Your task to perform on an android device: Search for vegetarian restaurants on Maps Image 0: 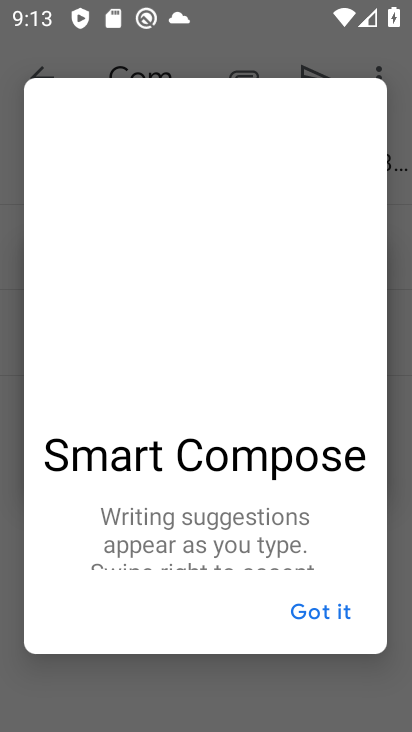
Step 0: click (312, 609)
Your task to perform on an android device: Search for vegetarian restaurants on Maps Image 1: 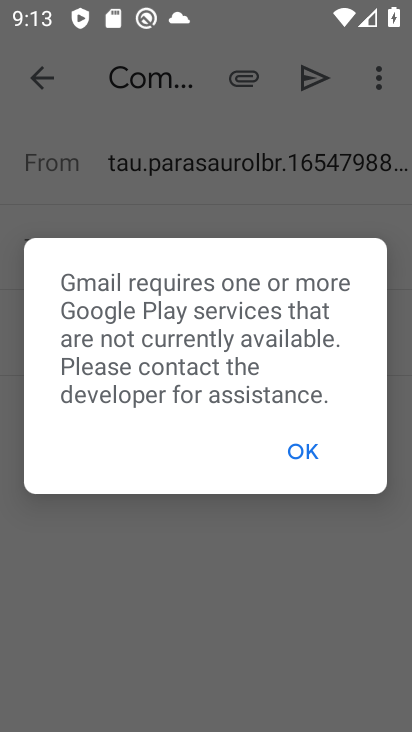
Step 1: click (297, 449)
Your task to perform on an android device: Search for vegetarian restaurants on Maps Image 2: 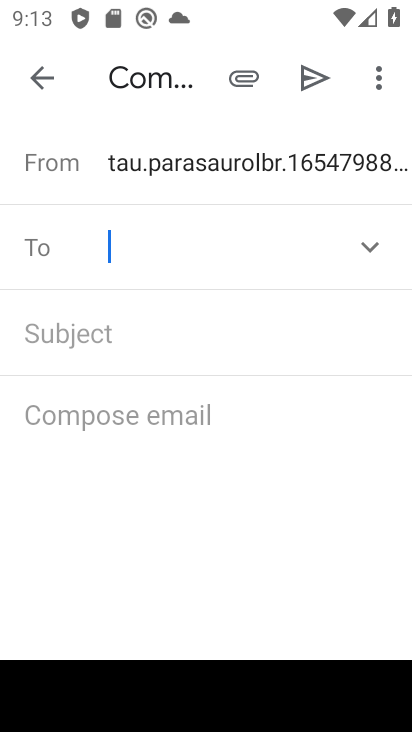
Step 2: click (39, 81)
Your task to perform on an android device: Search for vegetarian restaurants on Maps Image 3: 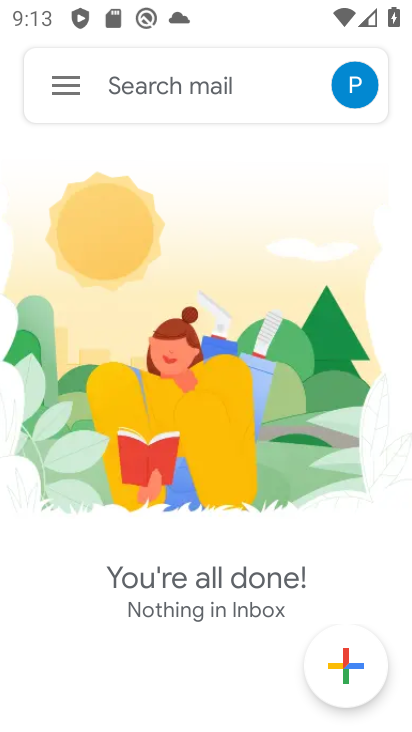
Step 3: press home button
Your task to perform on an android device: Search for vegetarian restaurants on Maps Image 4: 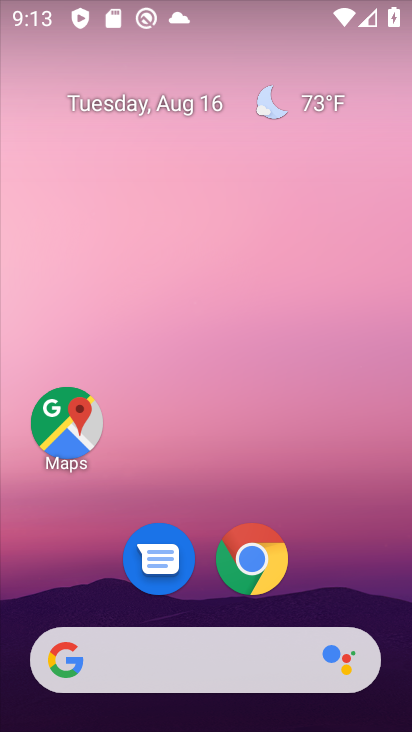
Step 4: click (66, 420)
Your task to perform on an android device: Search for vegetarian restaurants on Maps Image 5: 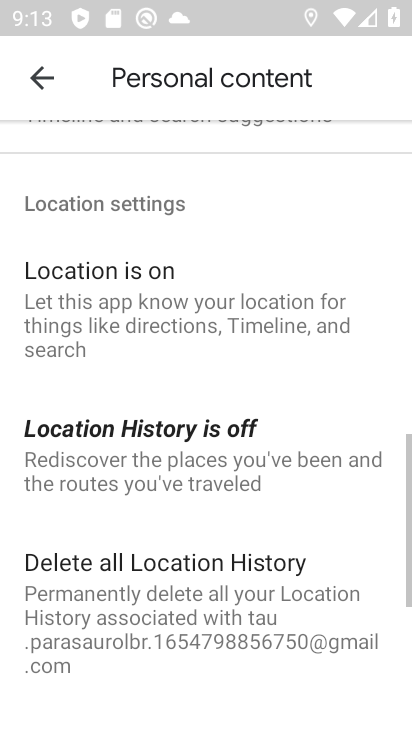
Step 5: click (41, 72)
Your task to perform on an android device: Search for vegetarian restaurants on Maps Image 6: 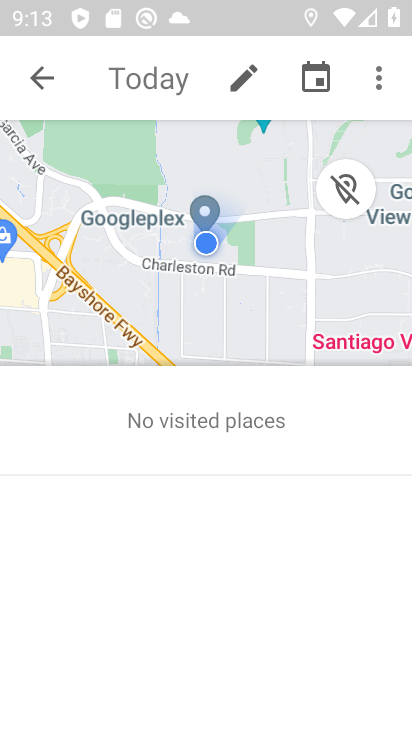
Step 6: click (41, 72)
Your task to perform on an android device: Search for vegetarian restaurants on Maps Image 7: 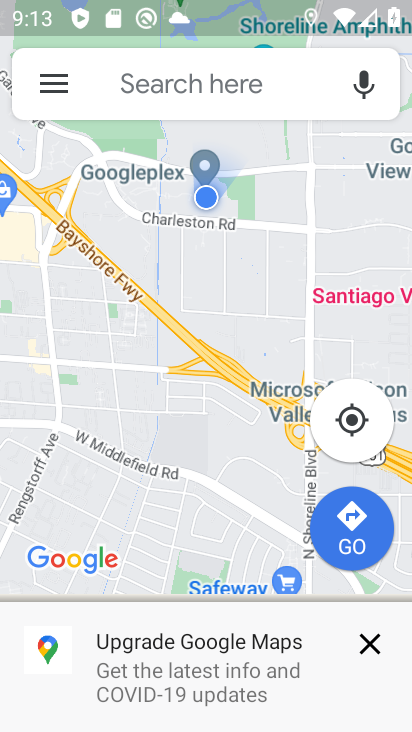
Step 7: click (165, 72)
Your task to perform on an android device: Search for vegetarian restaurants on Maps Image 8: 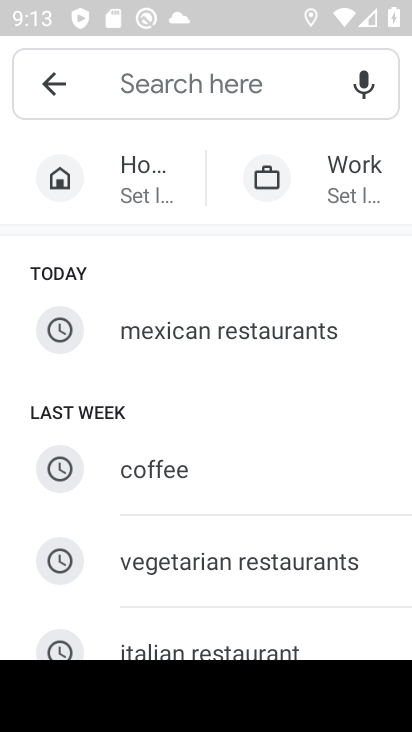
Step 8: type " vegetarian restaurants"
Your task to perform on an android device: Search for vegetarian restaurants on Maps Image 9: 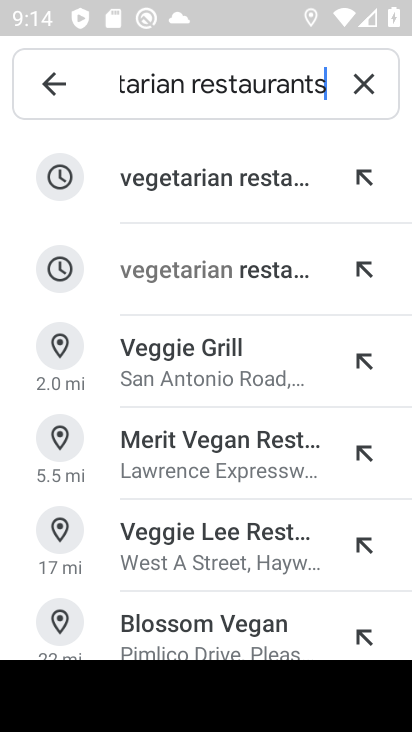
Step 9: click (180, 181)
Your task to perform on an android device: Search for vegetarian restaurants on Maps Image 10: 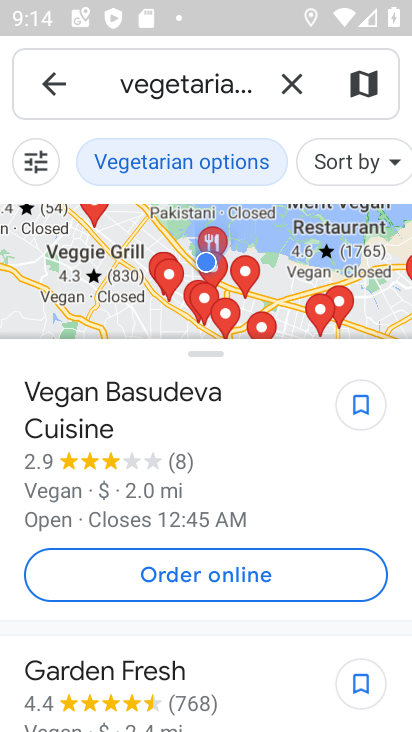
Step 10: task complete